Your task to perform on an android device: open chrome and create a bookmark for the current page Image 0: 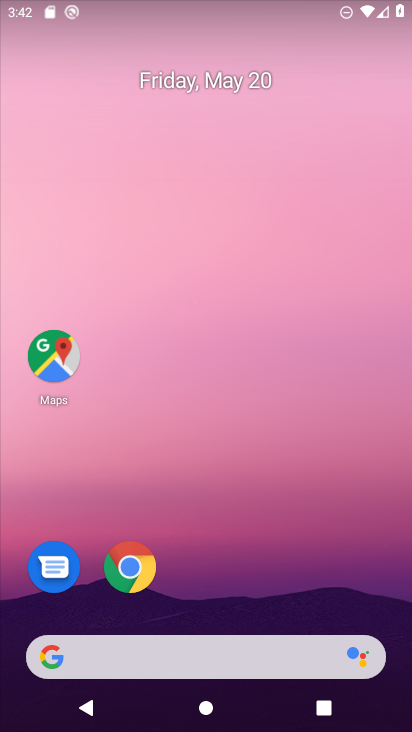
Step 0: click (130, 568)
Your task to perform on an android device: open chrome and create a bookmark for the current page Image 1: 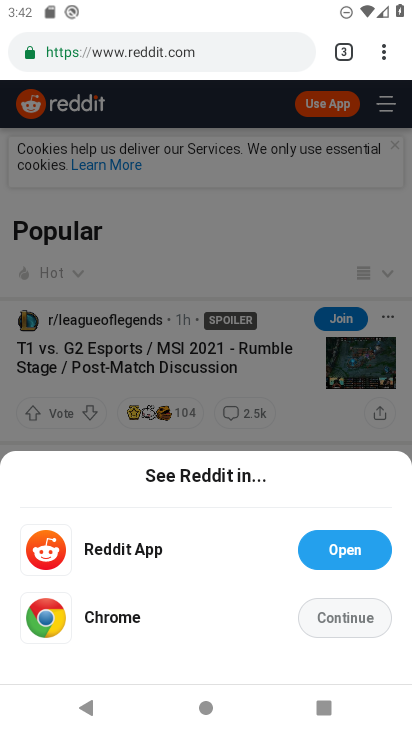
Step 1: click (387, 59)
Your task to perform on an android device: open chrome and create a bookmark for the current page Image 2: 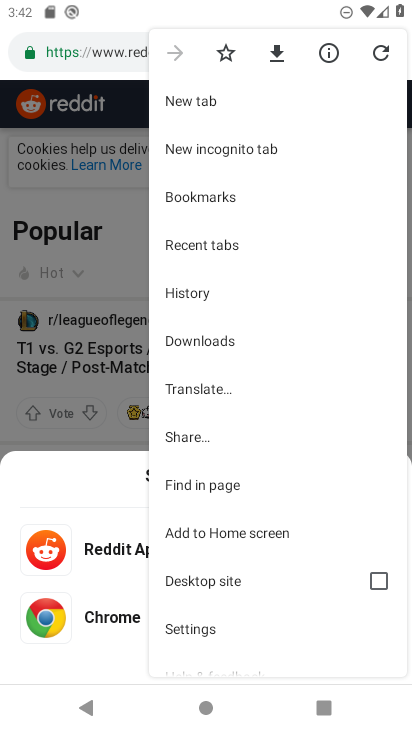
Step 2: click (224, 50)
Your task to perform on an android device: open chrome and create a bookmark for the current page Image 3: 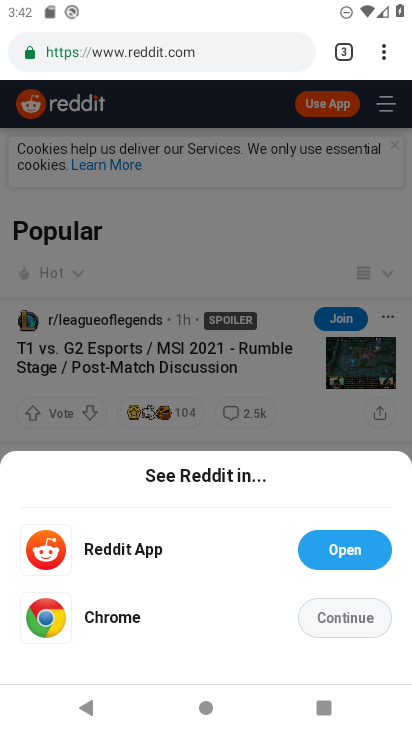
Step 3: task complete